Your task to perform on an android device: uninstall "Calculator" Image 0: 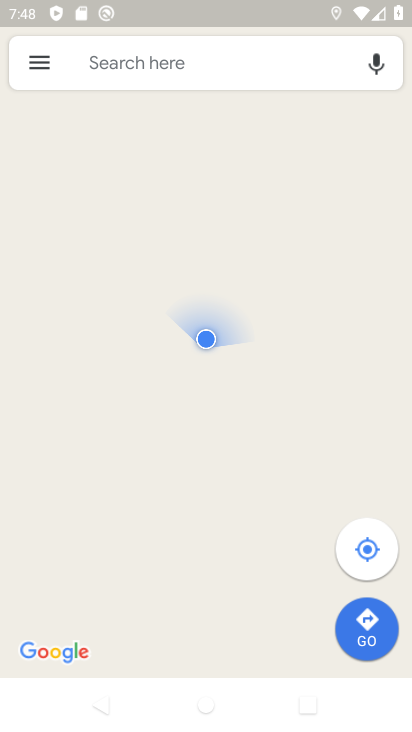
Step 0: press home button
Your task to perform on an android device: uninstall "Calculator" Image 1: 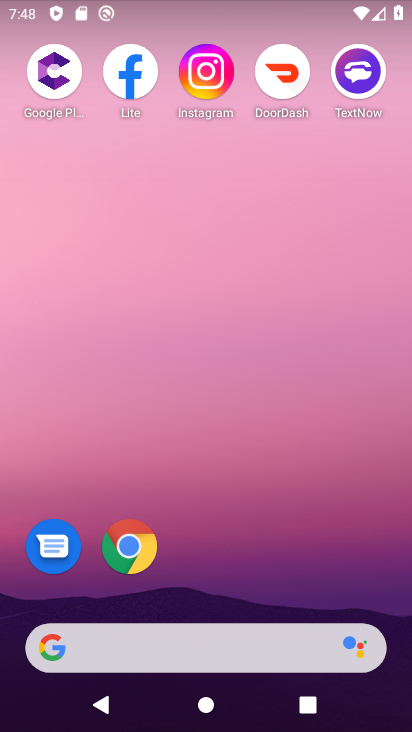
Step 1: drag from (254, 476) to (288, 22)
Your task to perform on an android device: uninstall "Calculator" Image 2: 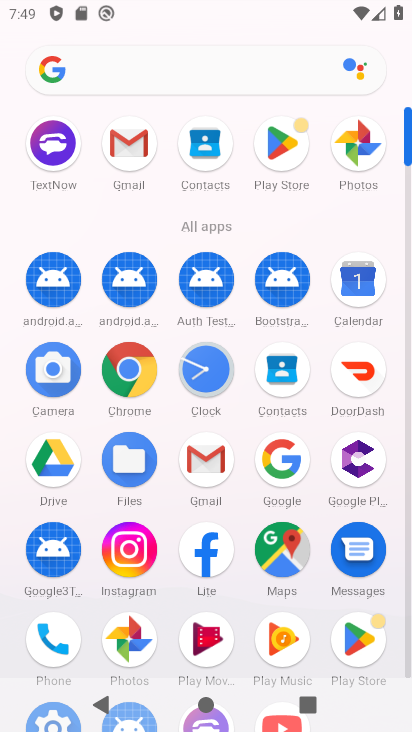
Step 2: click (280, 147)
Your task to perform on an android device: uninstall "Calculator" Image 3: 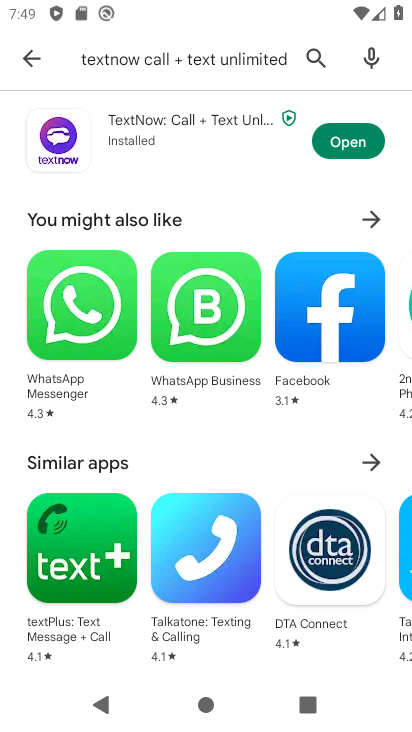
Step 3: click (271, 60)
Your task to perform on an android device: uninstall "Calculator" Image 4: 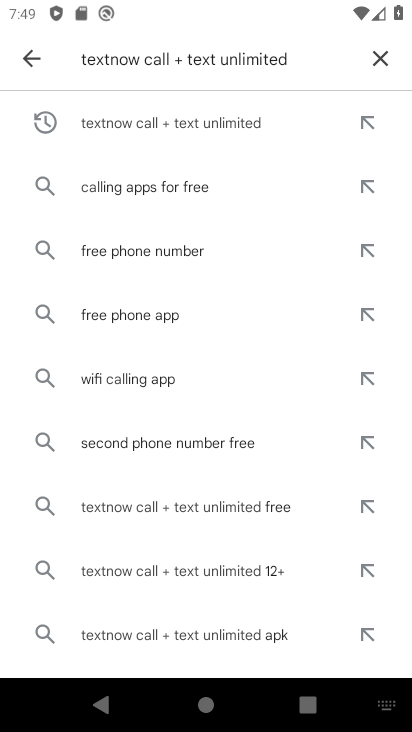
Step 4: click (374, 59)
Your task to perform on an android device: uninstall "Calculator" Image 5: 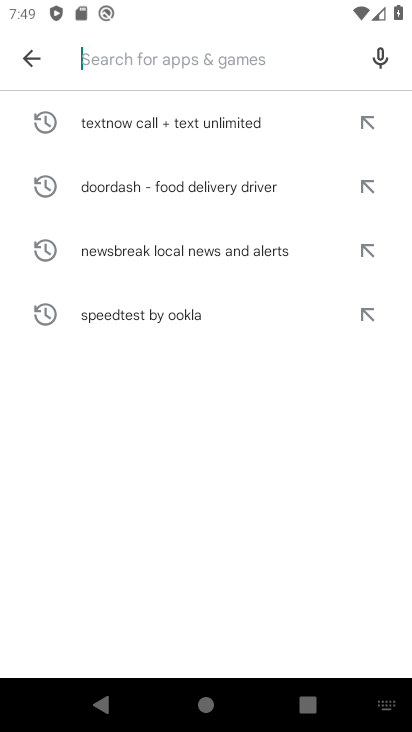
Step 5: type "calculator"
Your task to perform on an android device: uninstall "Calculator" Image 6: 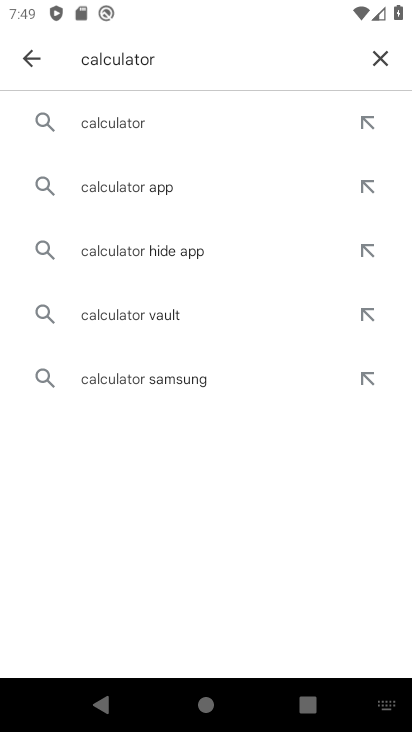
Step 6: click (134, 125)
Your task to perform on an android device: uninstall "Calculator" Image 7: 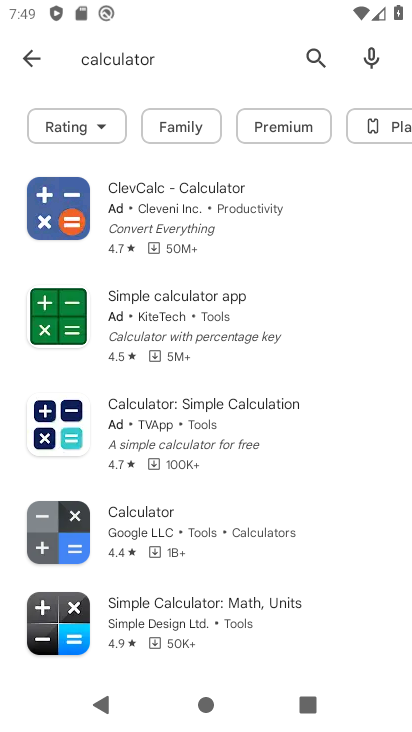
Step 7: task complete